Your task to perform on an android device: Open accessibility settings Image 0: 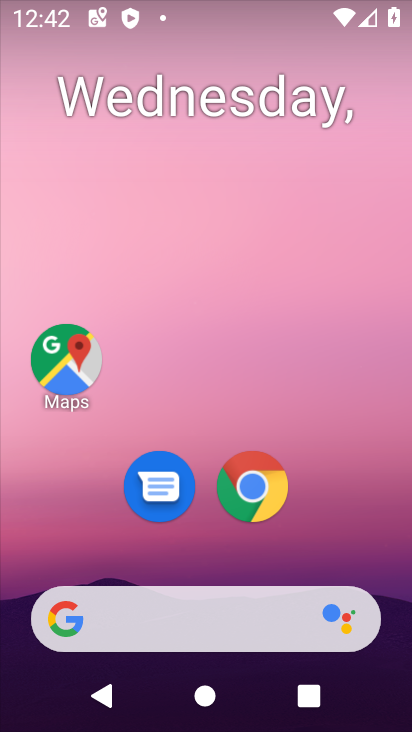
Step 0: drag from (368, 524) to (361, 73)
Your task to perform on an android device: Open accessibility settings Image 1: 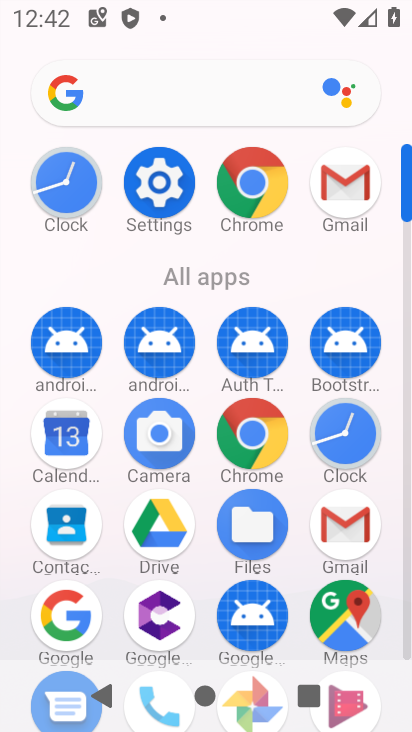
Step 1: click (174, 191)
Your task to perform on an android device: Open accessibility settings Image 2: 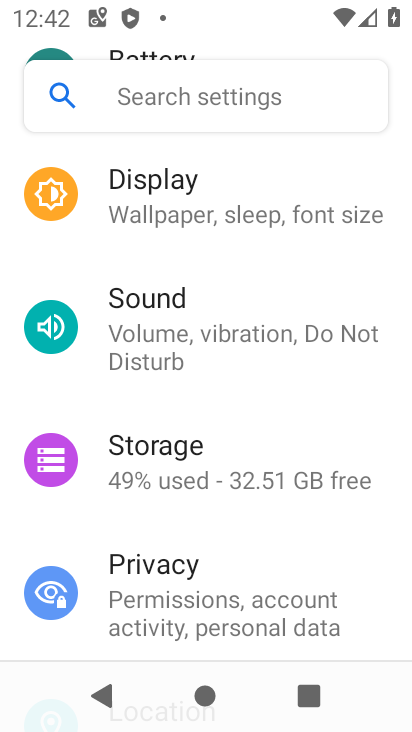
Step 2: drag from (378, 278) to (382, 420)
Your task to perform on an android device: Open accessibility settings Image 3: 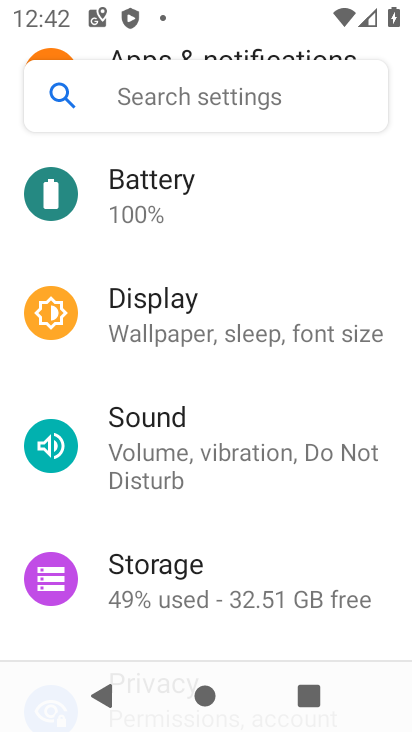
Step 3: drag from (381, 246) to (385, 441)
Your task to perform on an android device: Open accessibility settings Image 4: 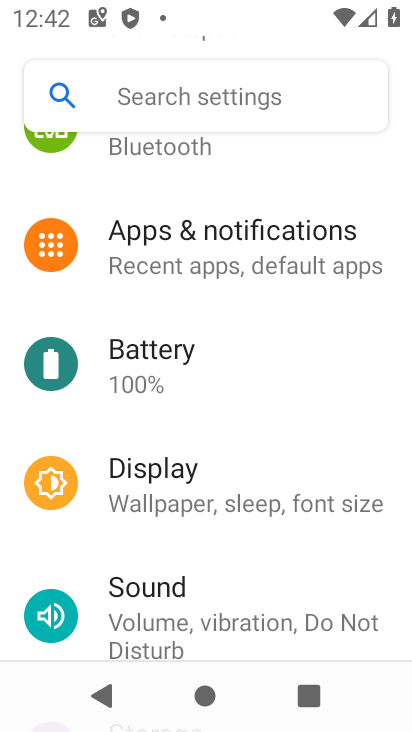
Step 4: drag from (371, 316) to (373, 461)
Your task to perform on an android device: Open accessibility settings Image 5: 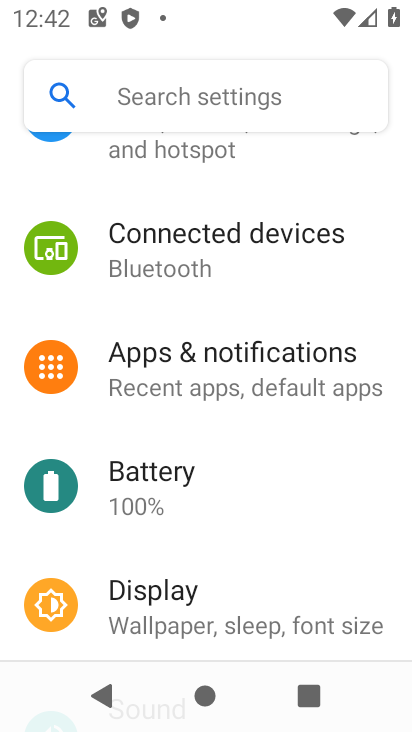
Step 5: drag from (366, 248) to (337, 513)
Your task to perform on an android device: Open accessibility settings Image 6: 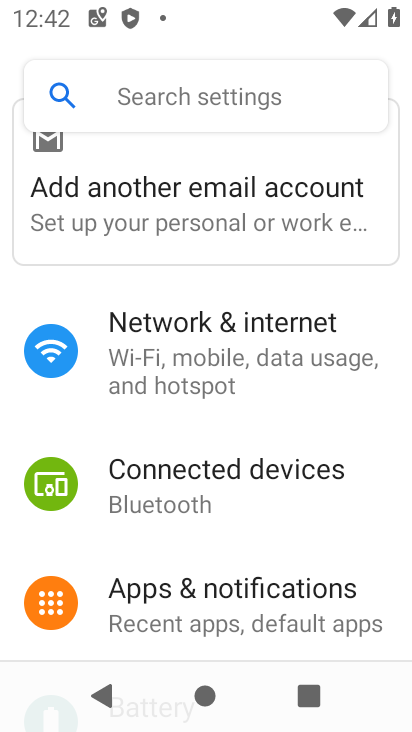
Step 6: drag from (363, 288) to (364, 446)
Your task to perform on an android device: Open accessibility settings Image 7: 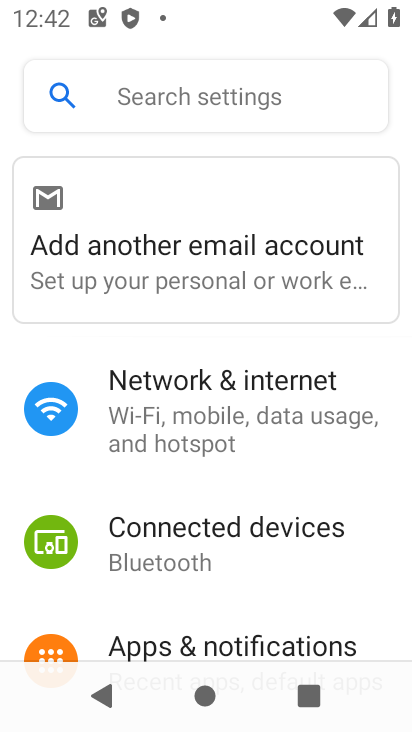
Step 7: drag from (357, 481) to (373, 310)
Your task to perform on an android device: Open accessibility settings Image 8: 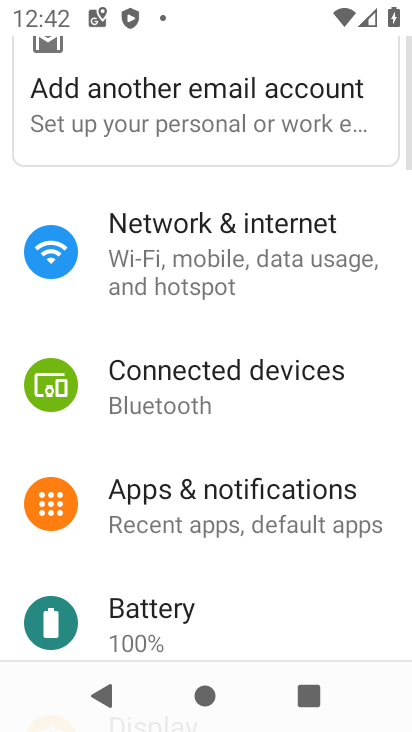
Step 8: drag from (368, 442) to (360, 291)
Your task to perform on an android device: Open accessibility settings Image 9: 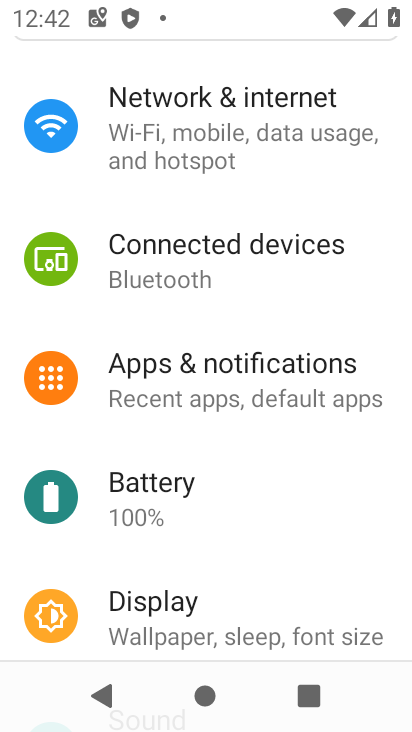
Step 9: drag from (341, 464) to (346, 296)
Your task to perform on an android device: Open accessibility settings Image 10: 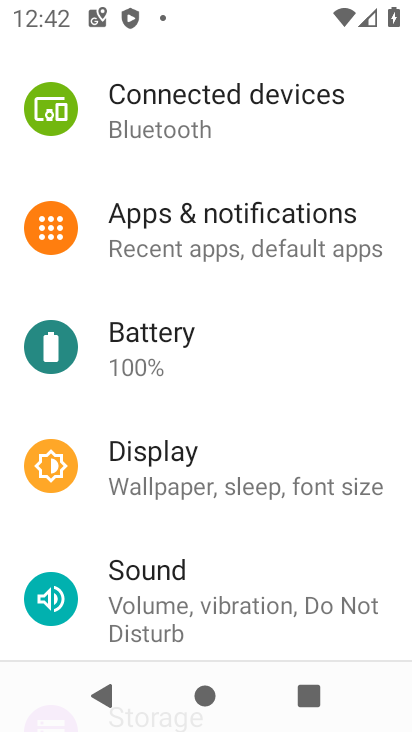
Step 10: drag from (346, 534) to (348, 375)
Your task to perform on an android device: Open accessibility settings Image 11: 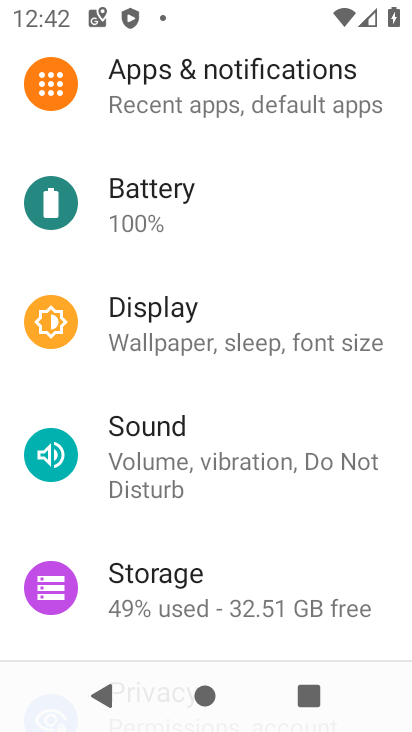
Step 11: drag from (346, 533) to (340, 319)
Your task to perform on an android device: Open accessibility settings Image 12: 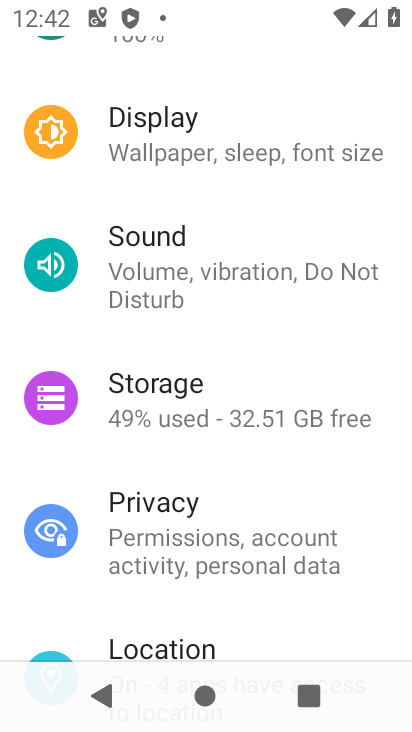
Step 12: drag from (348, 463) to (351, 245)
Your task to perform on an android device: Open accessibility settings Image 13: 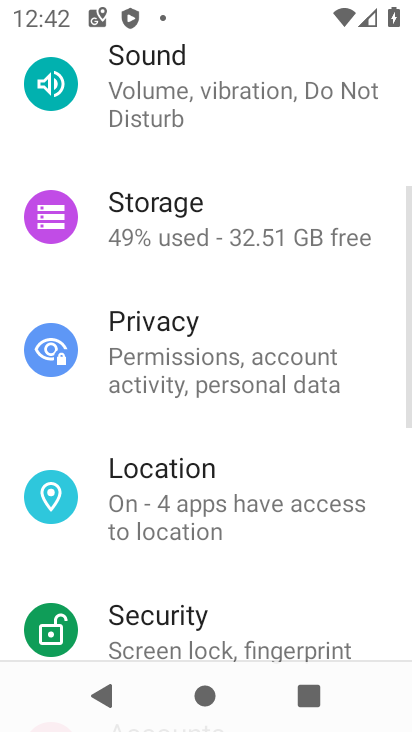
Step 13: drag from (342, 382) to (352, 192)
Your task to perform on an android device: Open accessibility settings Image 14: 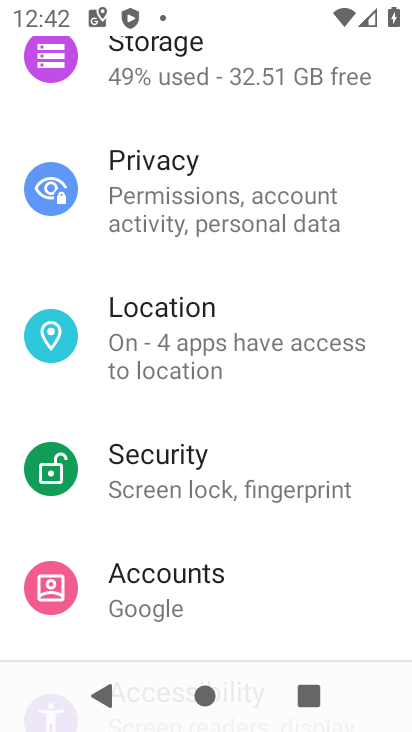
Step 14: drag from (364, 444) to (364, 301)
Your task to perform on an android device: Open accessibility settings Image 15: 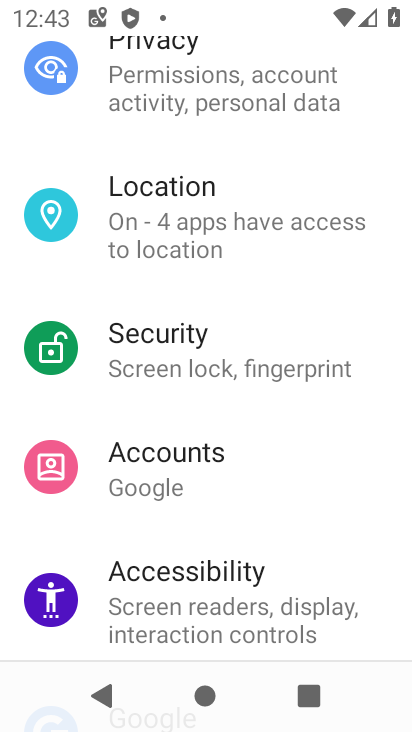
Step 15: click (313, 595)
Your task to perform on an android device: Open accessibility settings Image 16: 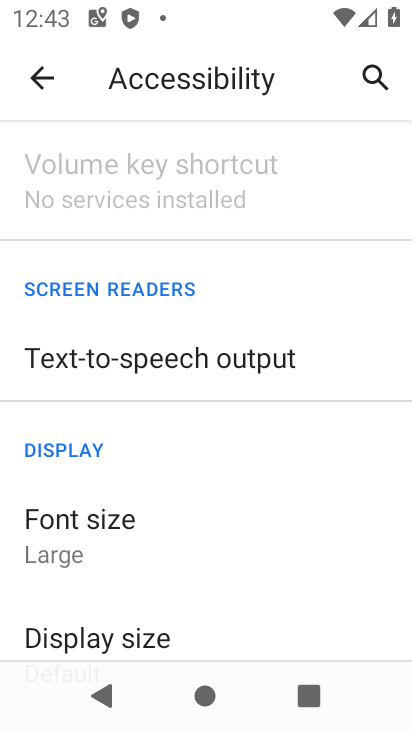
Step 16: task complete